Your task to perform on an android device: turn pop-ups off in chrome Image 0: 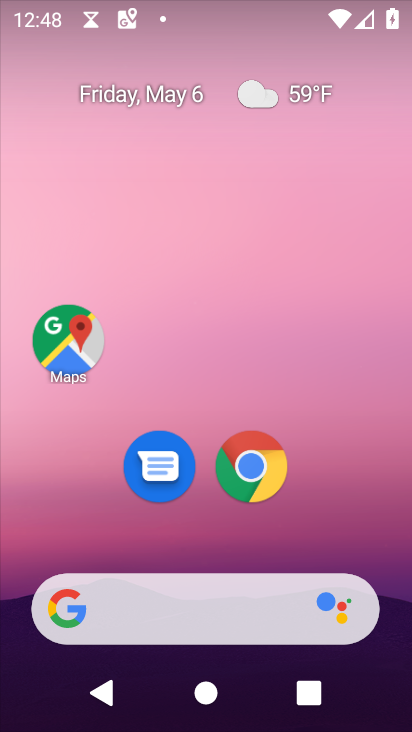
Step 0: drag from (347, 535) to (306, 145)
Your task to perform on an android device: turn pop-ups off in chrome Image 1: 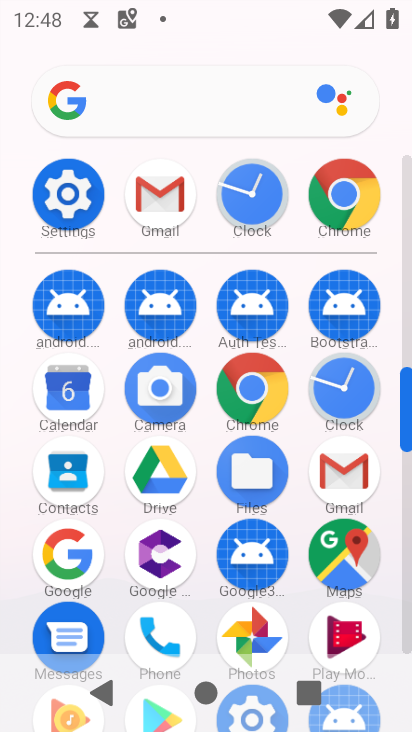
Step 1: click (354, 209)
Your task to perform on an android device: turn pop-ups off in chrome Image 2: 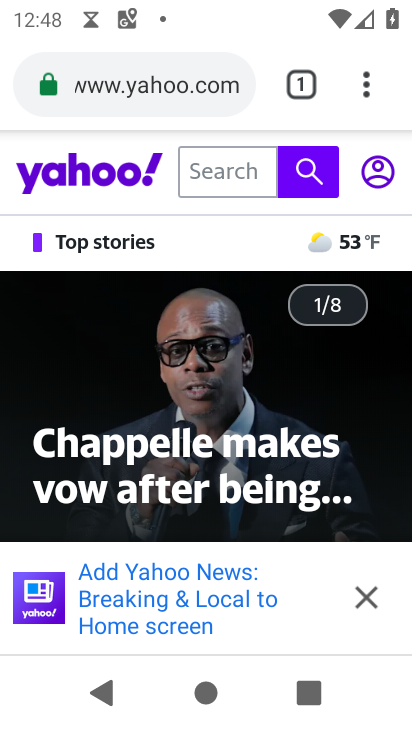
Step 2: drag from (372, 114) to (202, 511)
Your task to perform on an android device: turn pop-ups off in chrome Image 3: 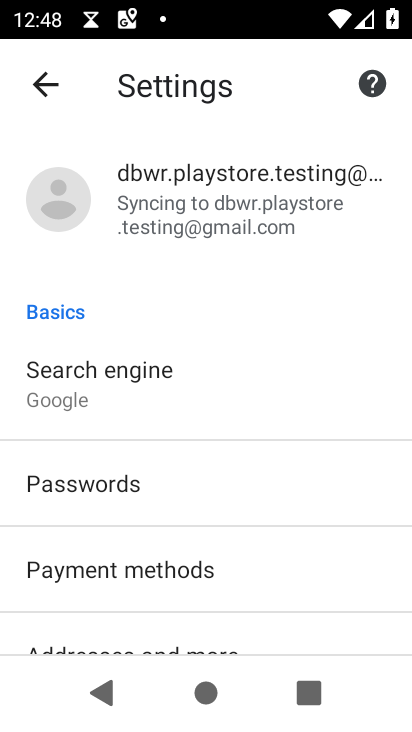
Step 3: drag from (251, 600) to (264, 154)
Your task to perform on an android device: turn pop-ups off in chrome Image 4: 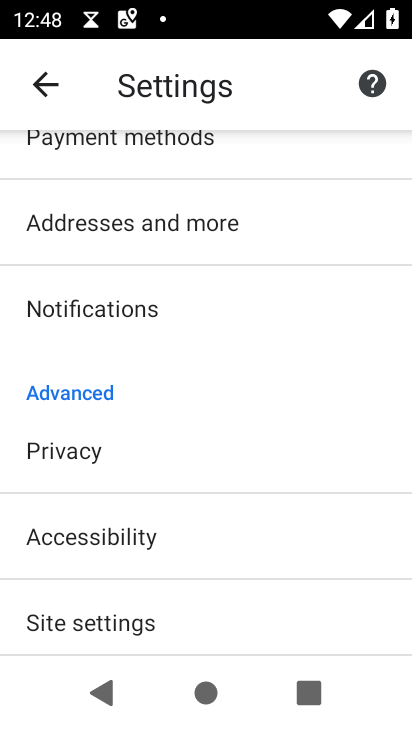
Step 4: drag from (278, 605) to (268, 307)
Your task to perform on an android device: turn pop-ups off in chrome Image 5: 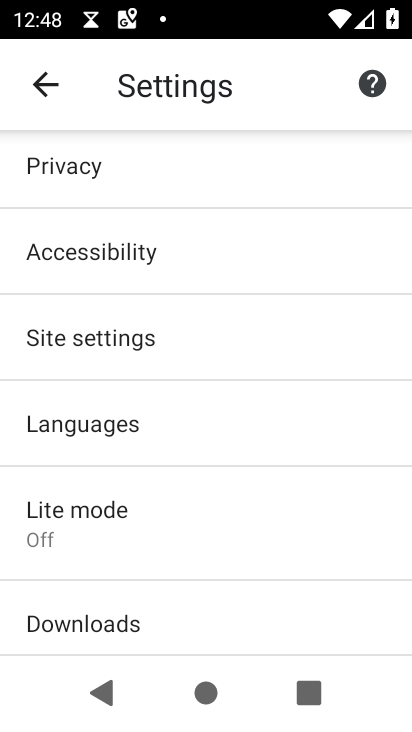
Step 5: click (225, 346)
Your task to perform on an android device: turn pop-ups off in chrome Image 6: 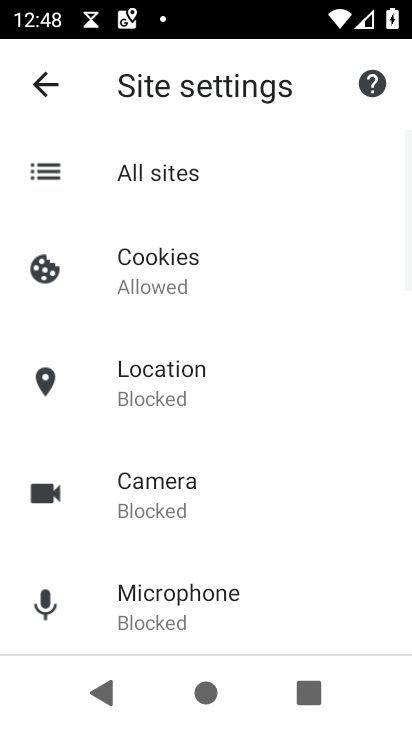
Step 6: drag from (255, 574) to (264, 282)
Your task to perform on an android device: turn pop-ups off in chrome Image 7: 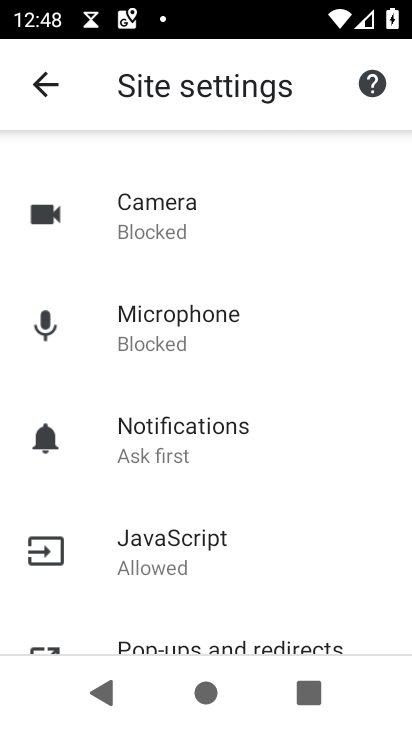
Step 7: drag from (274, 593) to (288, 323)
Your task to perform on an android device: turn pop-ups off in chrome Image 8: 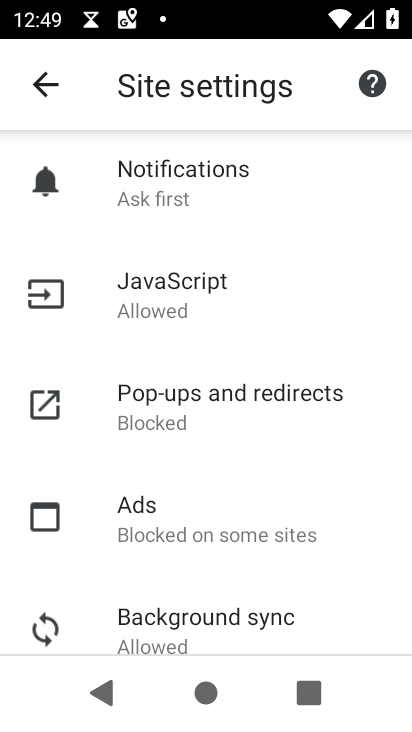
Step 8: click (289, 426)
Your task to perform on an android device: turn pop-ups off in chrome Image 9: 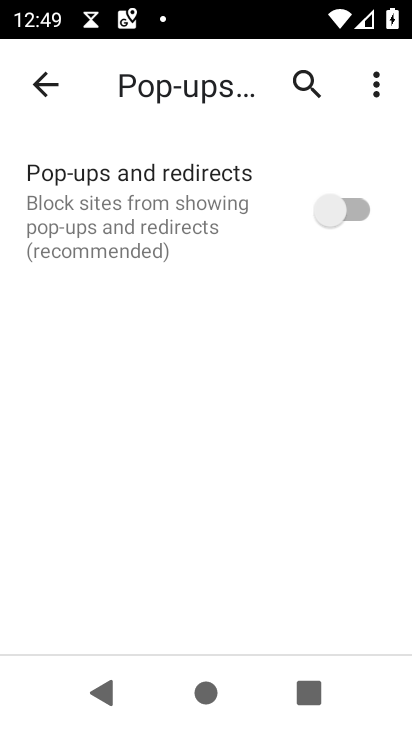
Step 9: task complete